Your task to perform on an android device: open chrome privacy settings Image 0: 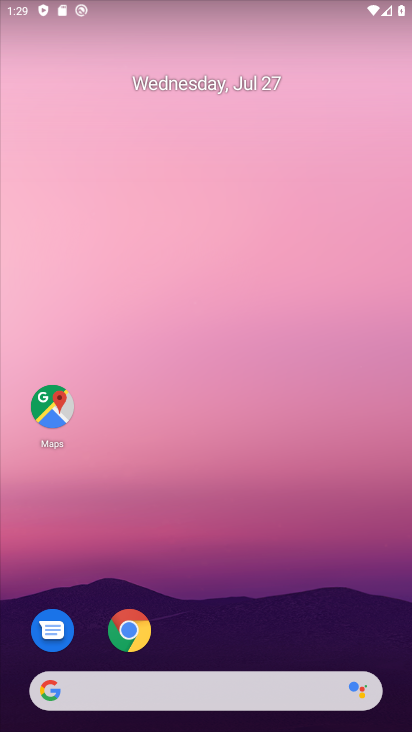
Step 0: click (125, 629)
Your task to perform on an android device: open chrome privacy settings Image 1: 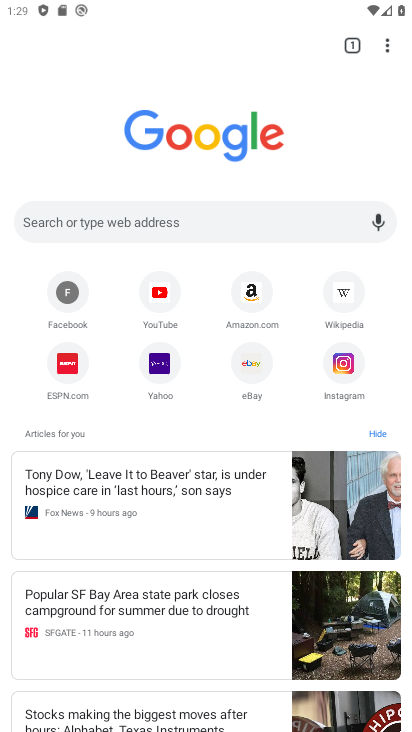
Step 1: click (387, 50)
Your task to perform on an android device: open chrome privacy settings Image 2: 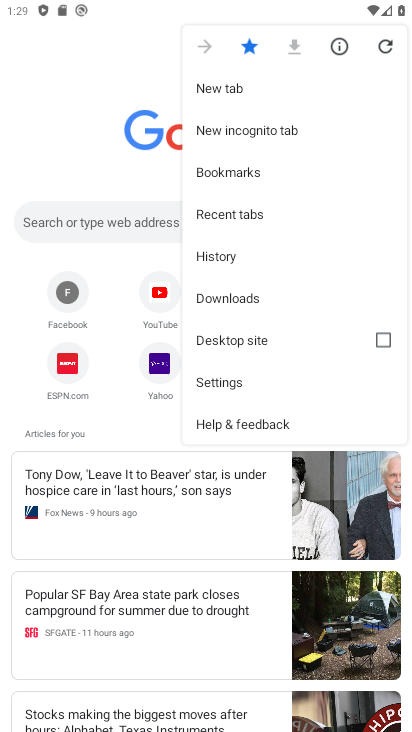
Step 2: click (207, 373)
Your task to perform on an android device: open chrome privacy settings Image 3: 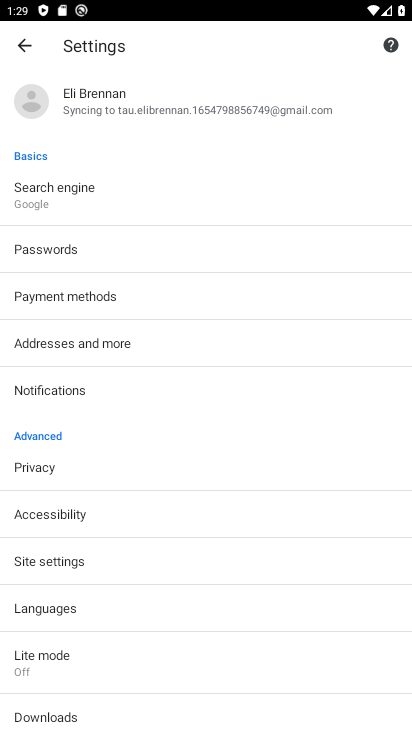
Step 3: click (44, 478)
Your task to perform on an android device: open chrome privacy settings Image 4: 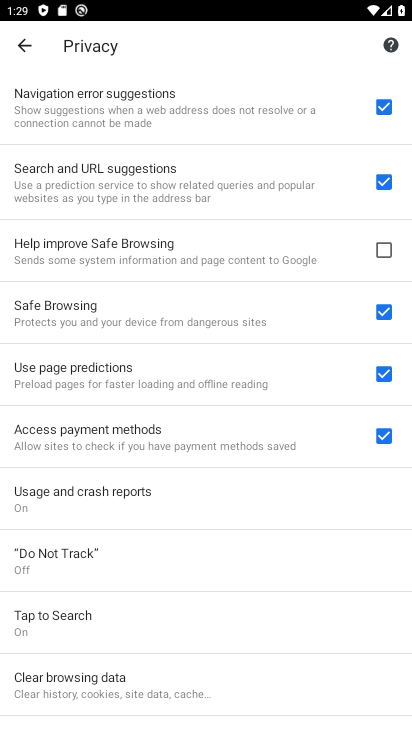
Step 4: task complete